Your task to perform on an android device: star an email in the gmail app Image 0: 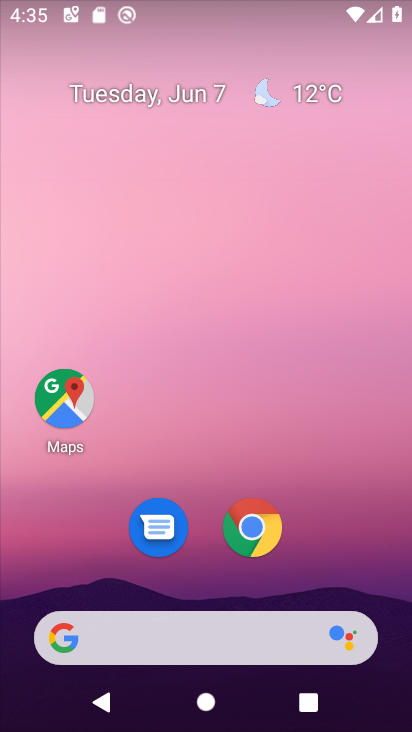
Step 0: drag from (211, 558) to (316, 6)
Your task to perform on an android device: star an email in the gmail app Image 1: 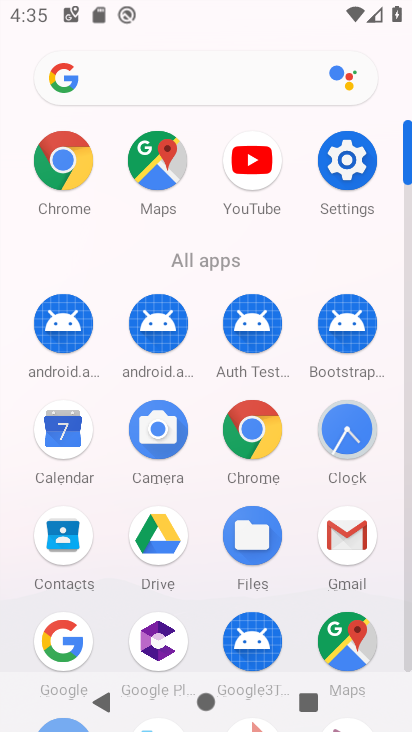
Step 1: click (354, 540)
Your task to perform on an android device: star an email in the gmail app Image 2: 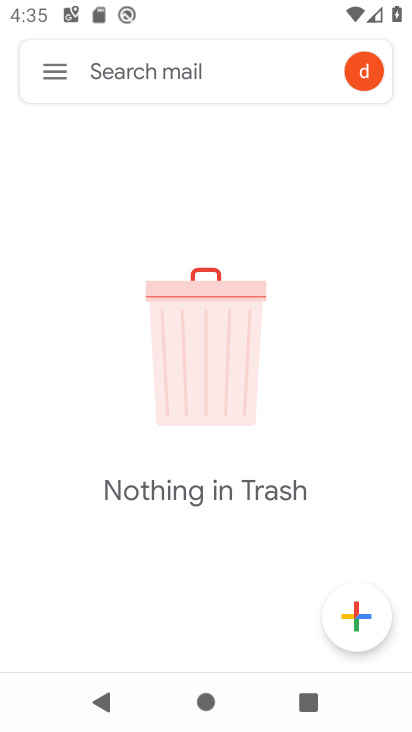
Step 2: click (56, 70)
Your task to perform on an android device: star an email in the gmail app Image 3: 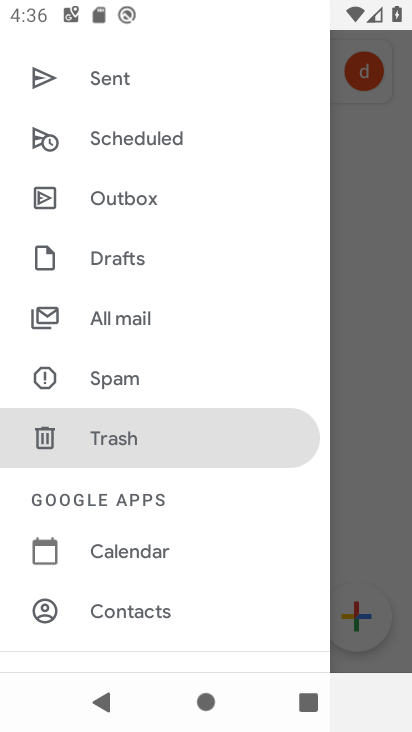
Step 3: click (89, 316)
Your task to perform on an android device: star an email in the gmail app Image 4: 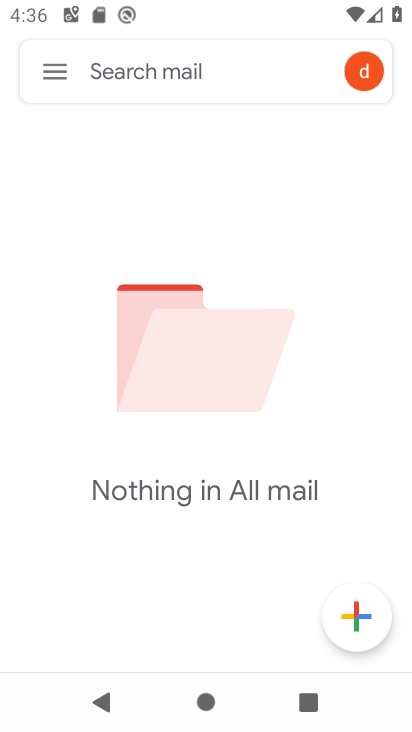
Step 4: task complete